Your task to perform on an android device: Check the news Image 0: 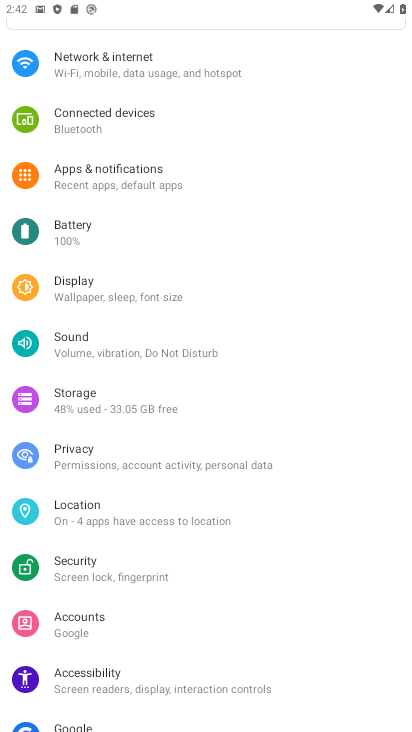
Step 0: press home button
Your task to perform on an android device: Check the news Image 1: 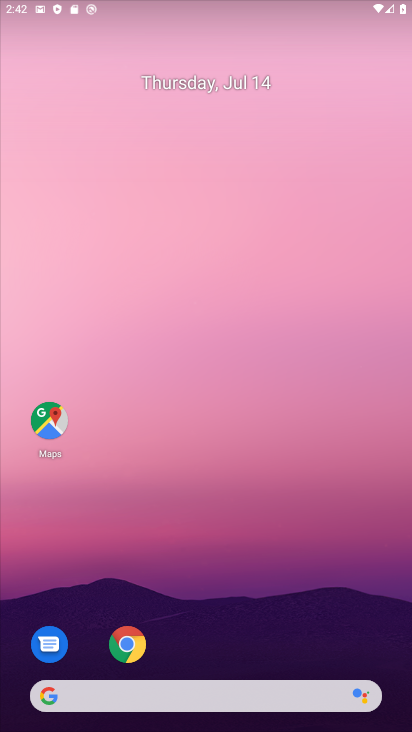
Step 1: drag from (222, 543) to (221, 3)
Your task to perform on an android device: Check the news Image 2: 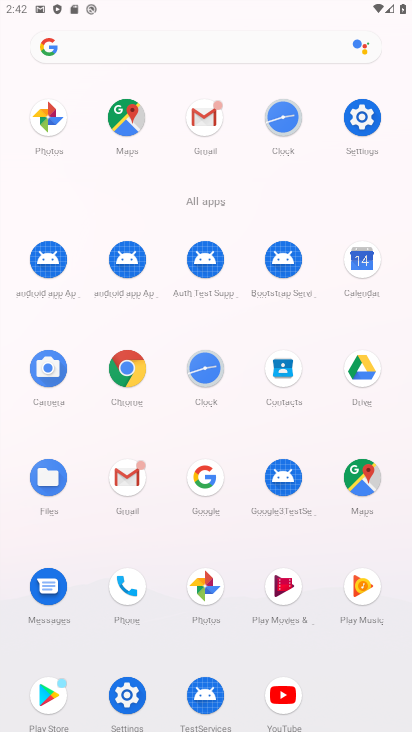
Step 2: click (195, 483)
Your task to perform on an android device: Check the news Image 3: 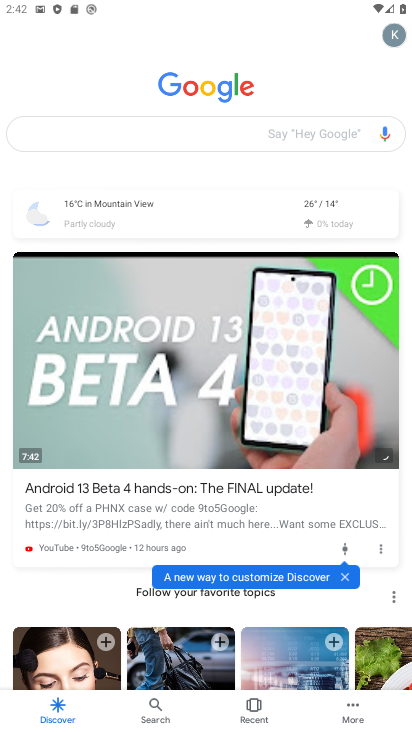
Step 3: click (81, 134)
Your task to perform on an android device: Check the news Image 4: 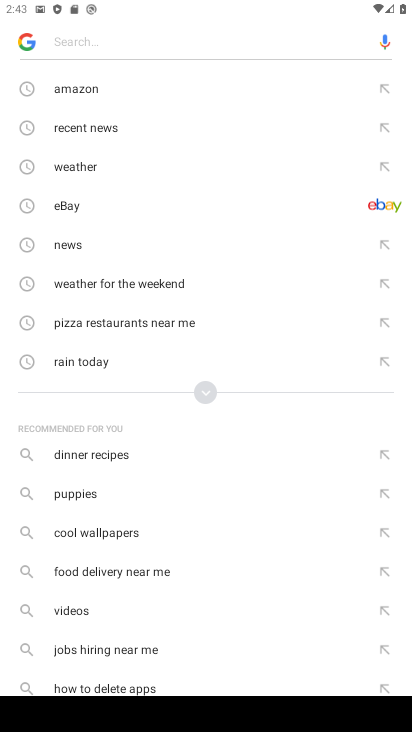
Step 4: type "news"
Your task to perform on an android device: Check the news Image 5: 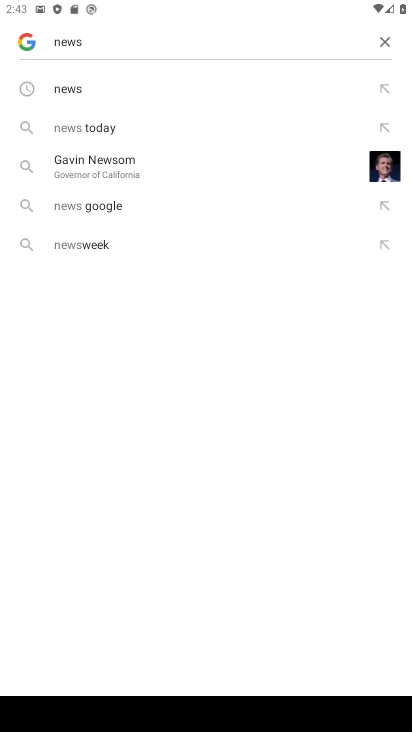
Step 5: click (88, 91)
Your task to perform on an android device: Check the news Image 6: 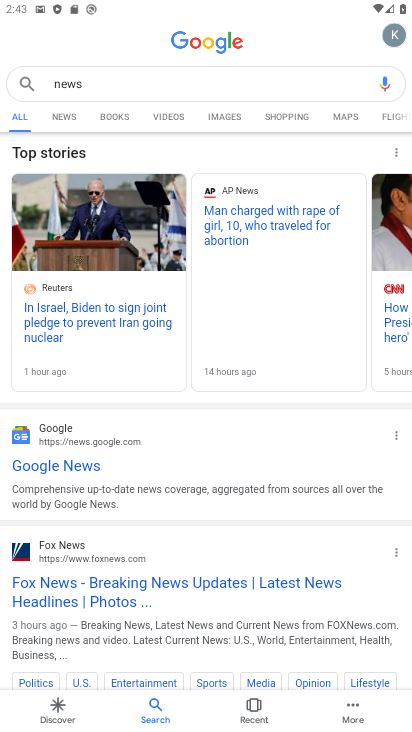
Step 6: click (56, 122)
Your task to perform on an android device: Check the news Image 7: 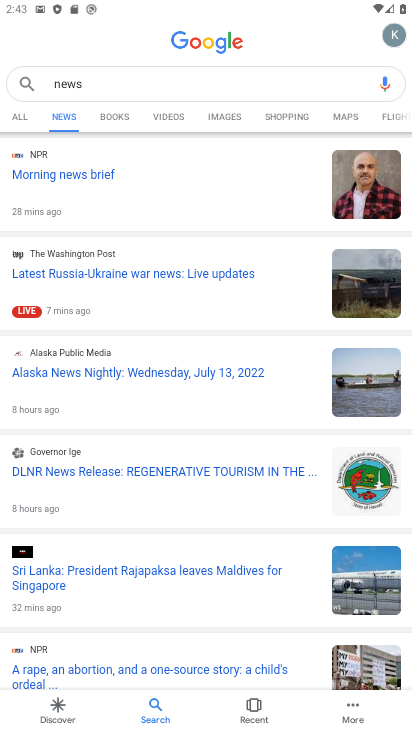
Step 7: task complete